Your task to perform on an android device: install app "Life360: Find Family & Friends" Image 0: 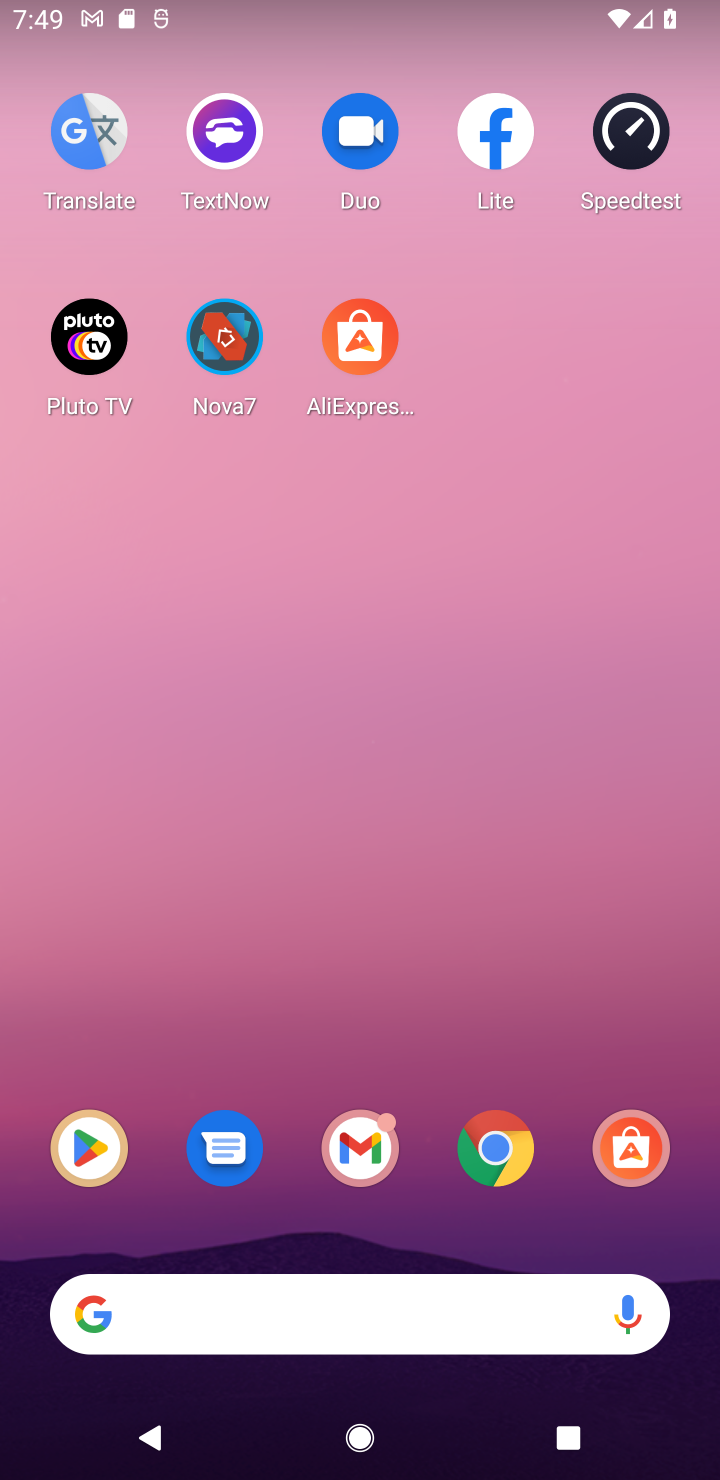
Step 0: drag from (572, 1075) to (364, 92)
Your task to perform on an android device: install app "Life360: Find Family & Friends" Image 1: 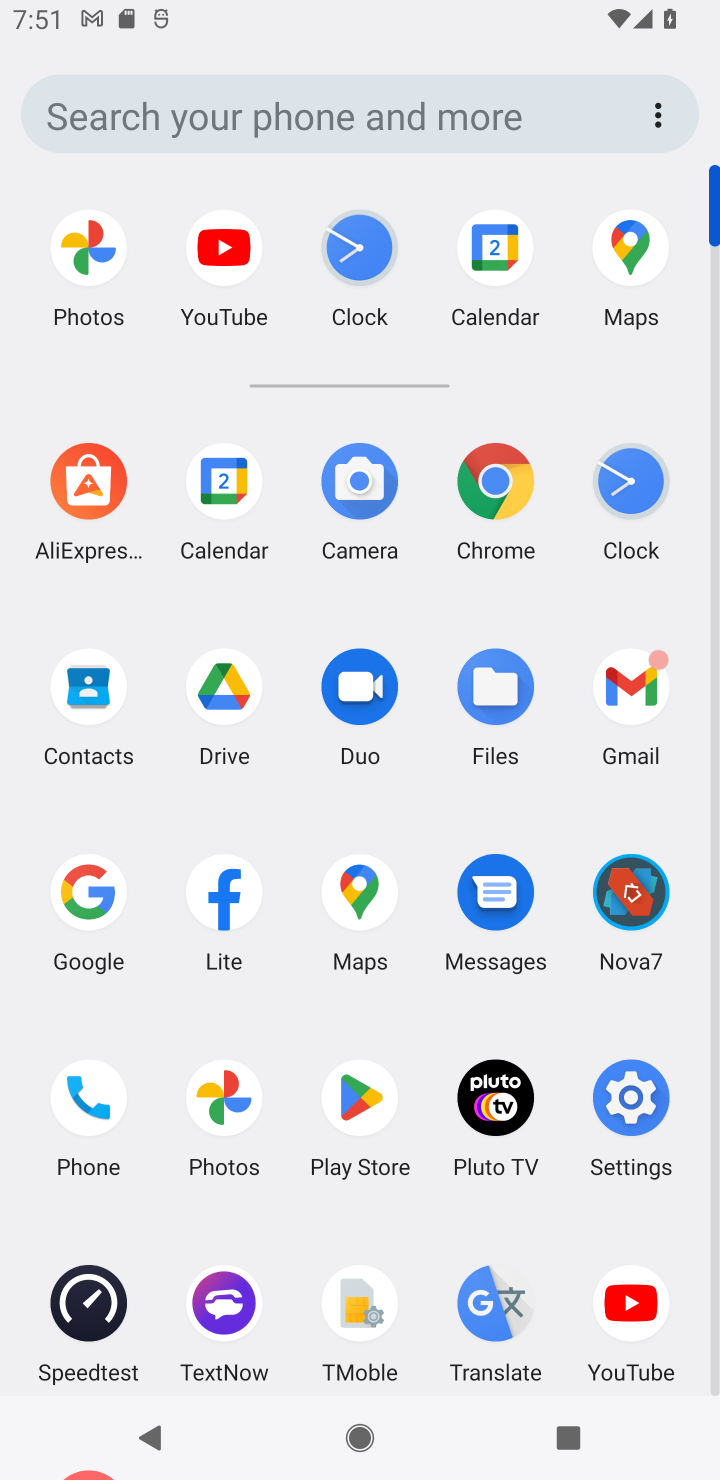
Step 1: click (330, 1095)
Your task to perform on an android device: install app "Life360: Find Family & Friends" Image 2: 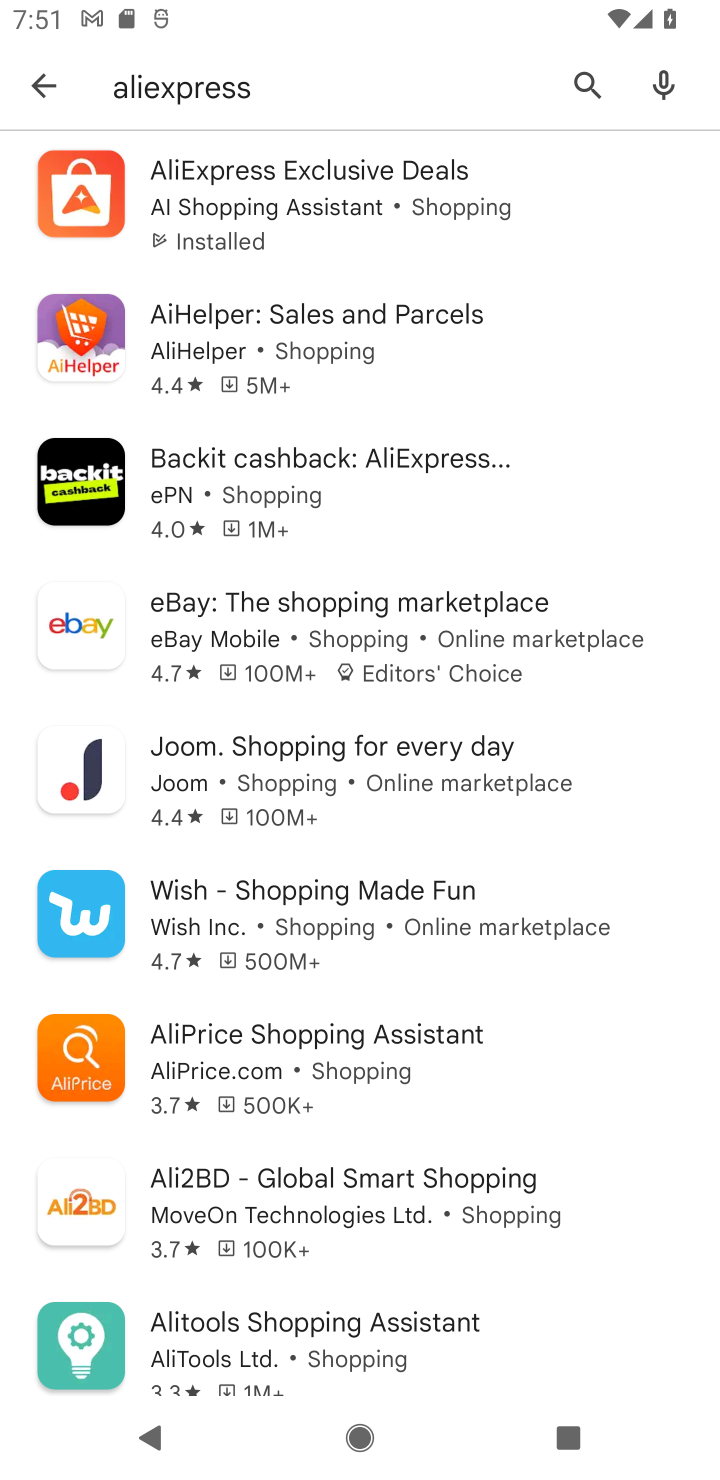
Step 2: press back button
Your task to perform on an android device: install app "Life360: Find Family & Friends" Image 3: 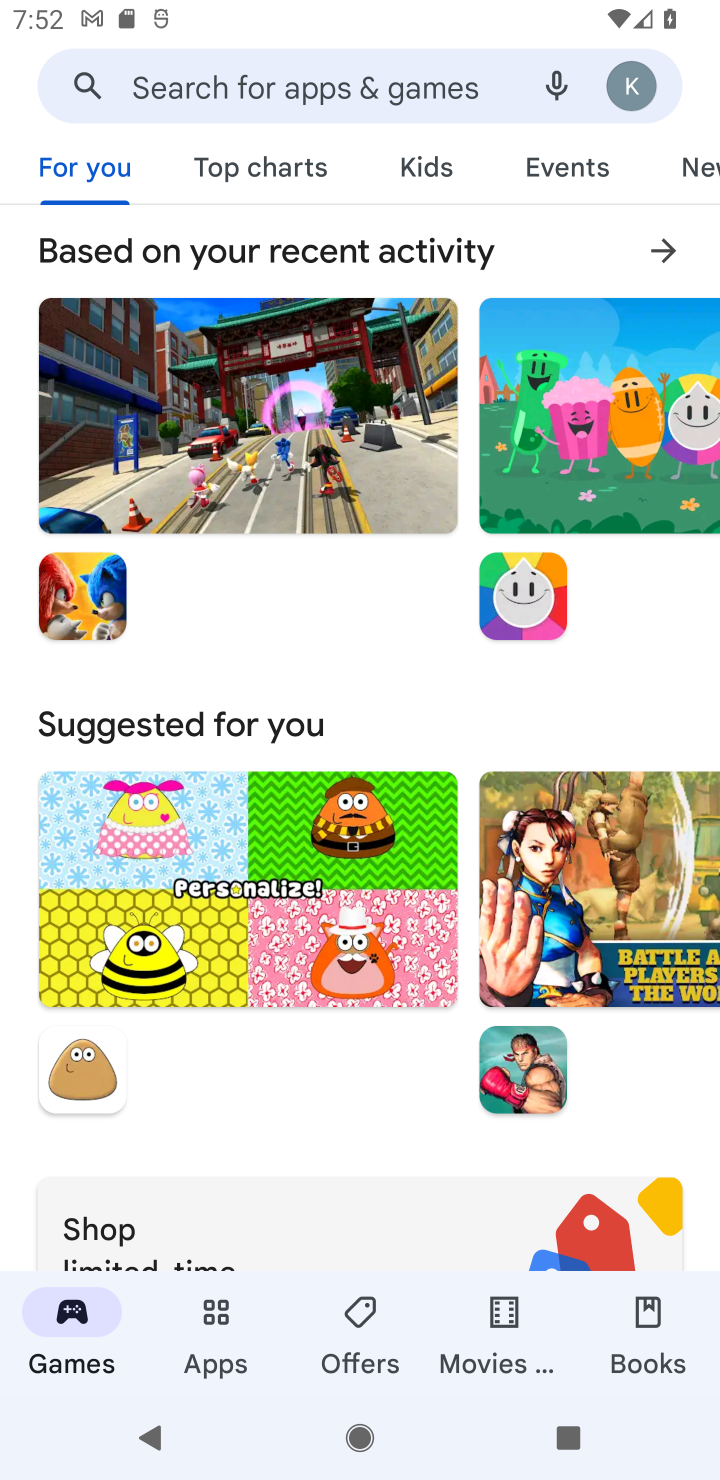
Step 3: click (245, 84)
Your task to perform on an android device: install app "Life360: Find Family & Friends" Image 4: 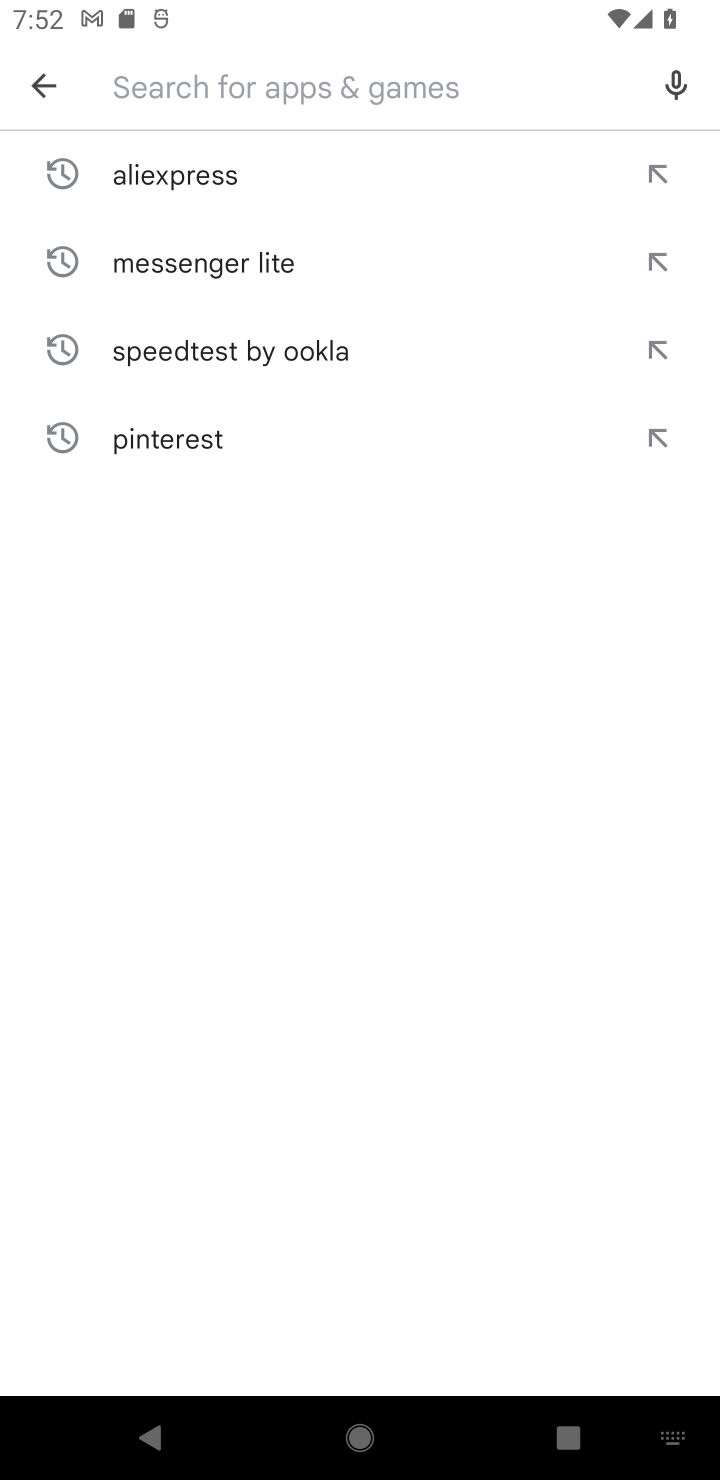
Step 4: type "Life360: Find Family & Friends"
Your task to perform on an android device: install app "Life360: Find Family & Friends" Image 5: 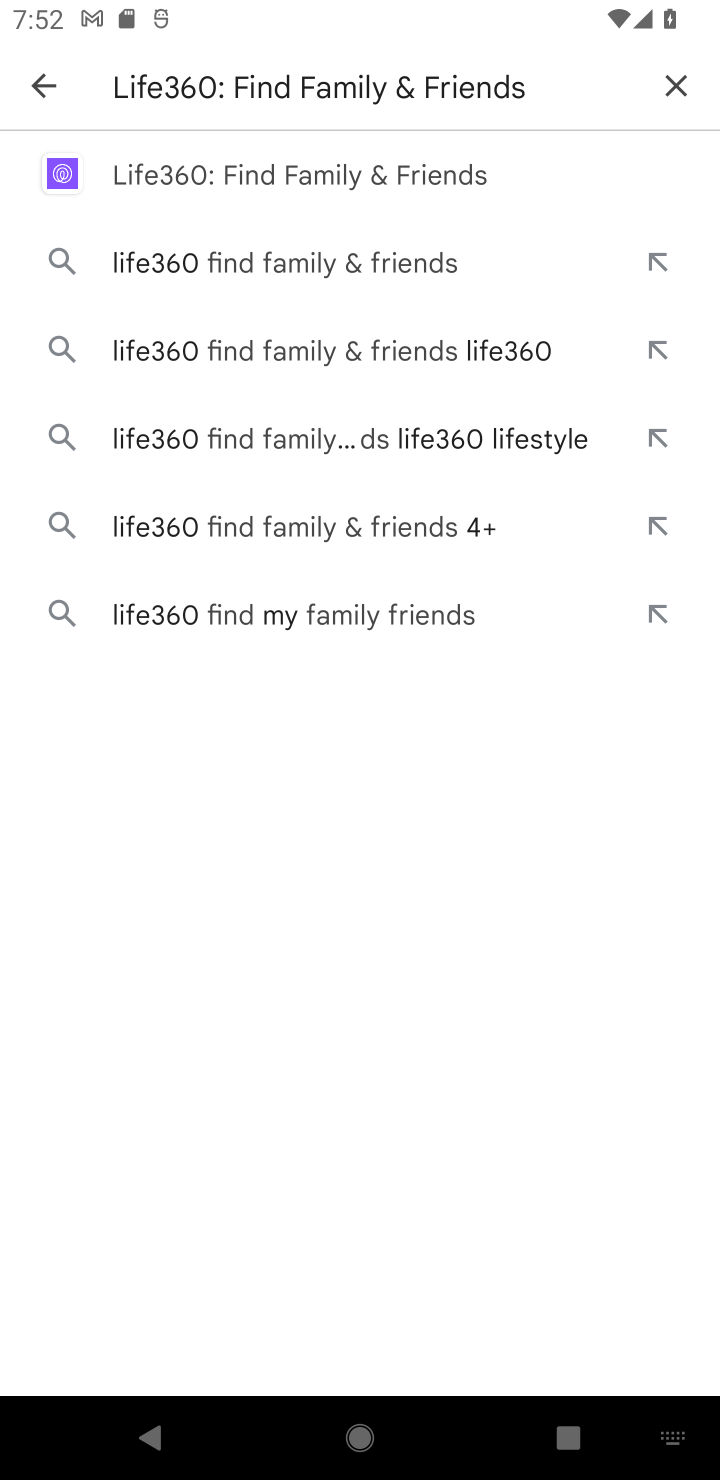
Step 5: click (200, 167)
Your task to perform on an android device: install app "Life360: Find Family & Friends" Image 6: 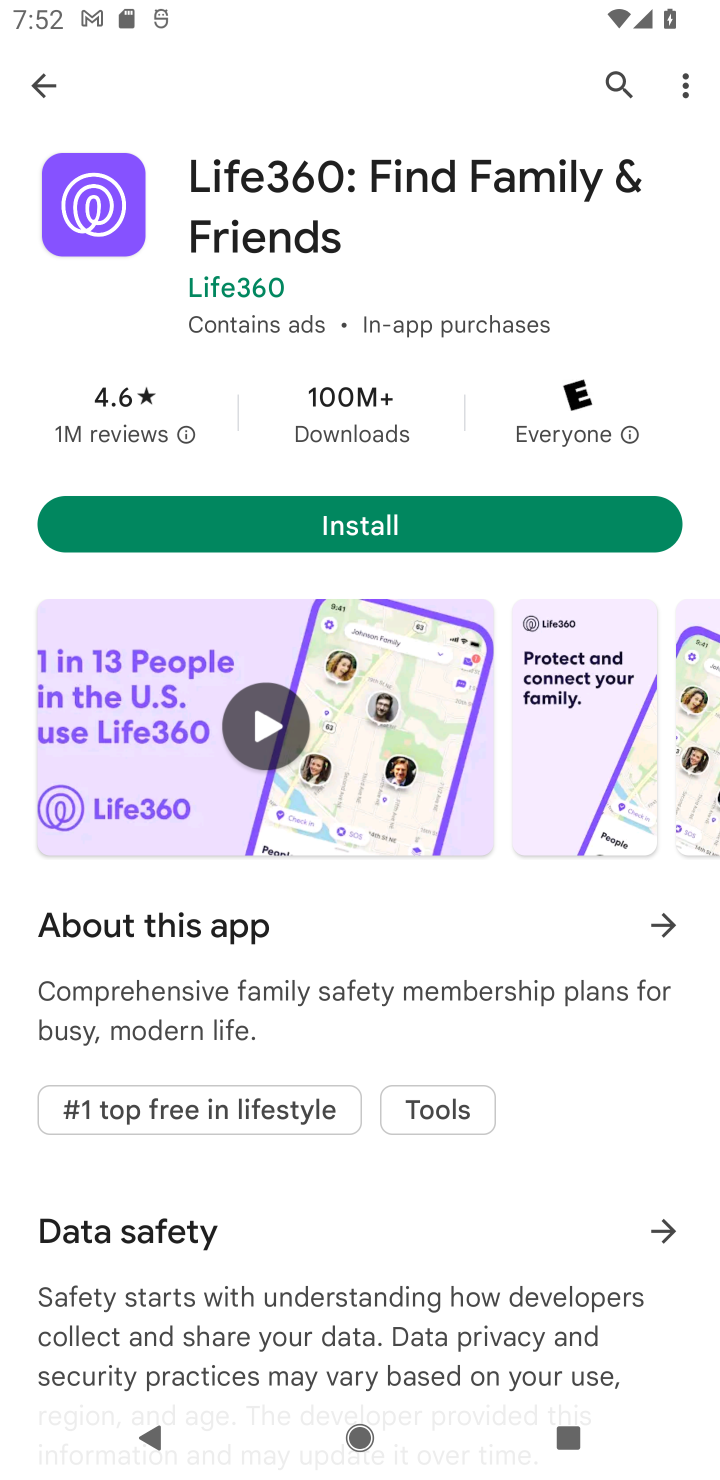
Step 6: click (336, 522)
Your task to perform on an android device: install app "Life360: Find Family & Friends" Image 7: 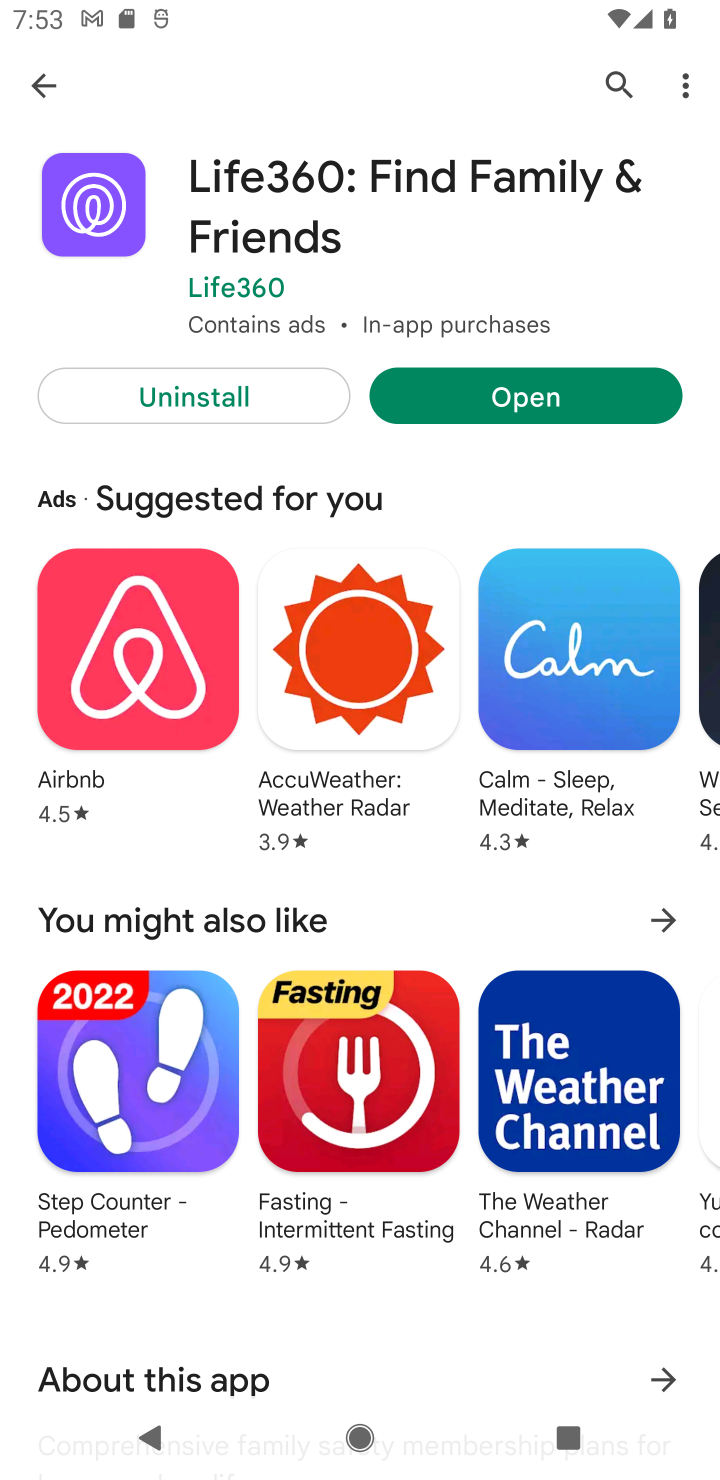
Step 7: task complete